Your task to perform on an android device: Open Amazon Image 0: 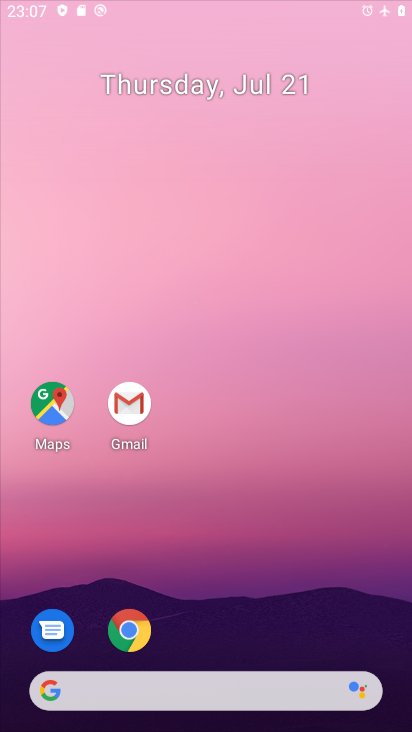
Step 0: click (17, 47)
Your task to perform on an android device: Open Amazon Image 1: 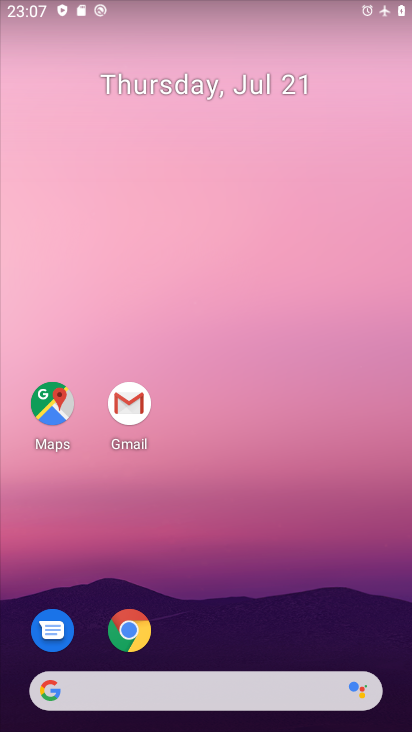
Step 1: drag from (199, 376) to (171, 153)
Your task to perform on an android device: Open Amazon Image 2: 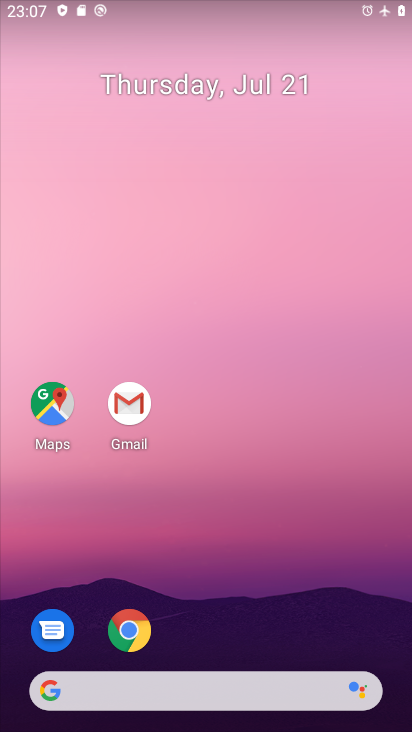
Step 2: click (172, 43)
Your task to perform on an android device: Open Amazon Image 3: 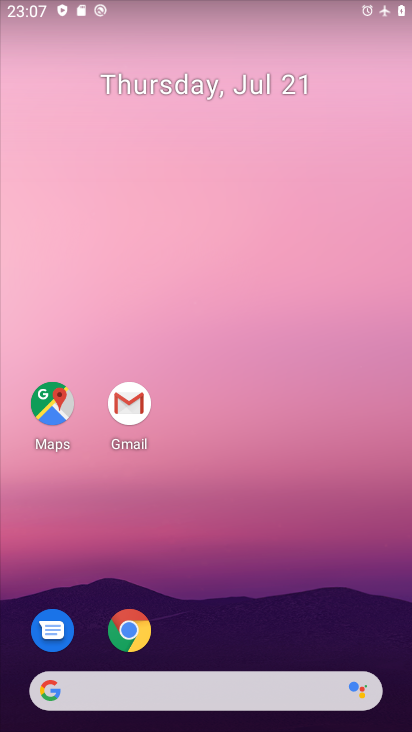
Step 3: drag from (251, 587) to (172, 55)
Your task to perform on an android device: Open Amazon Image 4: 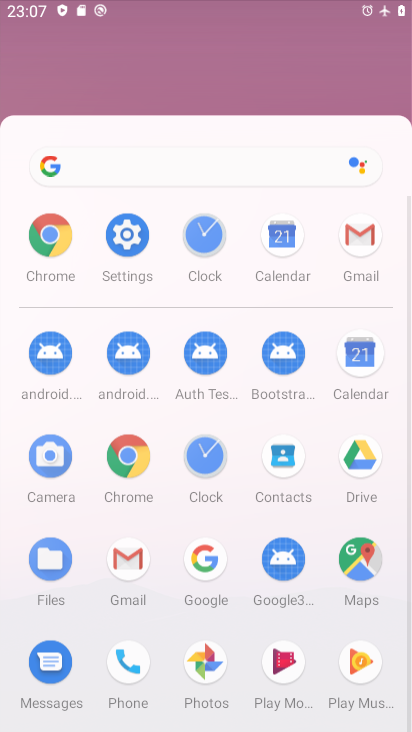
Step 4: drag from (219, 563) to (168, 65)
Your task to perform on an android device: Open Amazon Image 5: 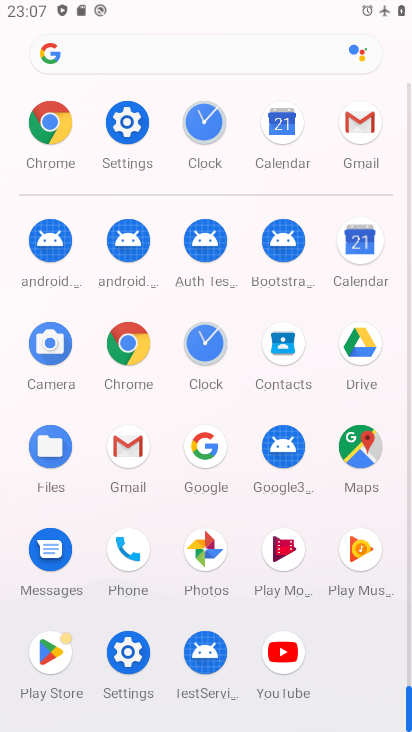
Step 5: click (49, 131)
Your task to perform on an android device: Open Amazon Image 6: 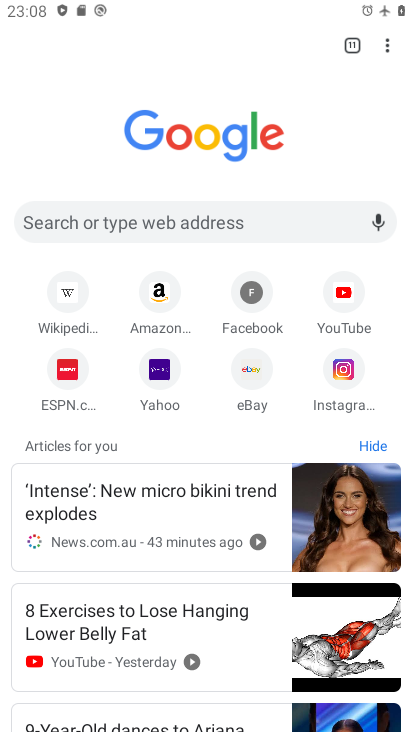
Step 6: click (150, 287)
Your task to perform on an android device: Open Amazon Image 7: 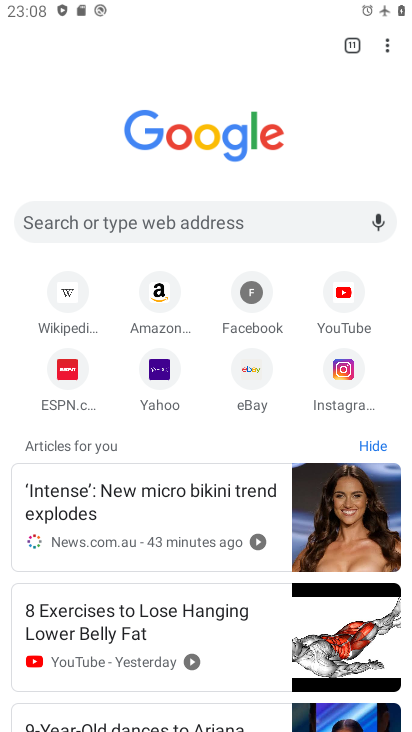
Step 7: click (154, 282)
Your task to perform on an android device: Open Amazon Image 8: 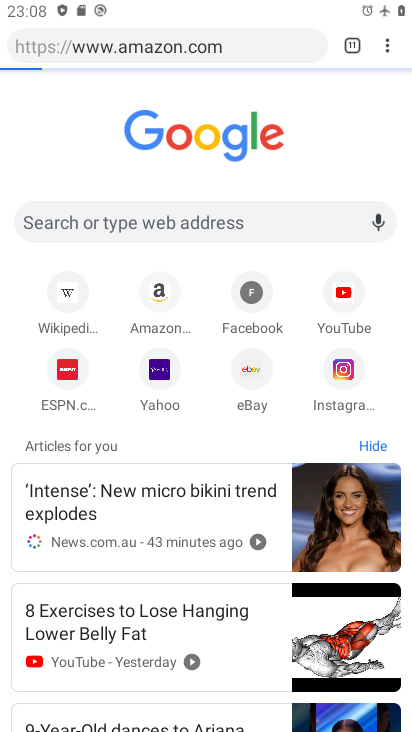
Step 8: click (154, 278)
Your task to perform on an android device: Open Amazon Image 9: 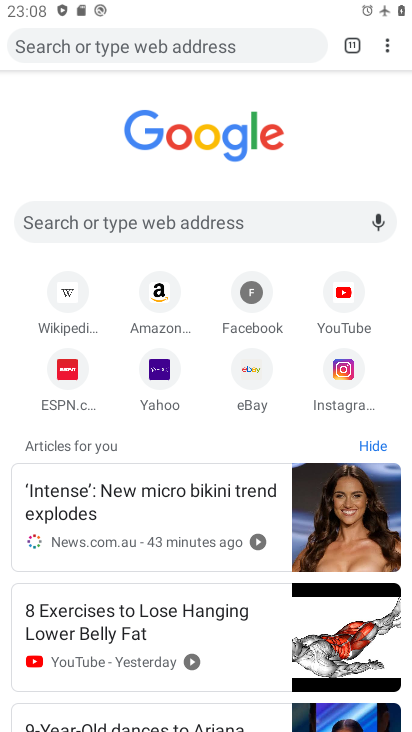
Step 9: click (163, 298)
Your task to perform on an android device: Open Amazon Image 10: 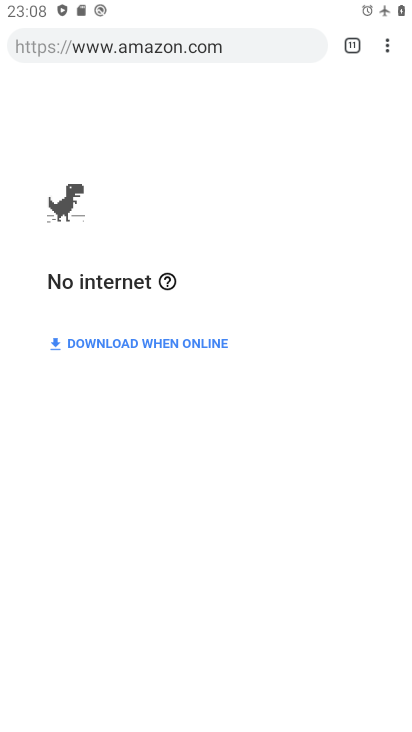
Step 10: task complete